Your task to perform on an android device: check data usage Image 0: 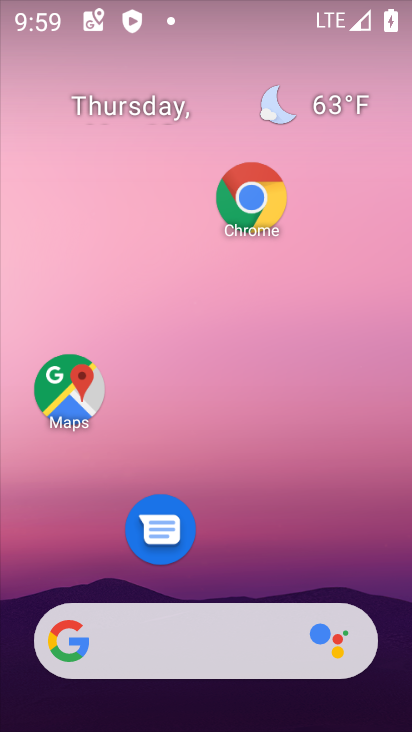
Step 0: drag from (296, 605) to (290, 149)
Your task to perform on an android device: check data usage Image 1: 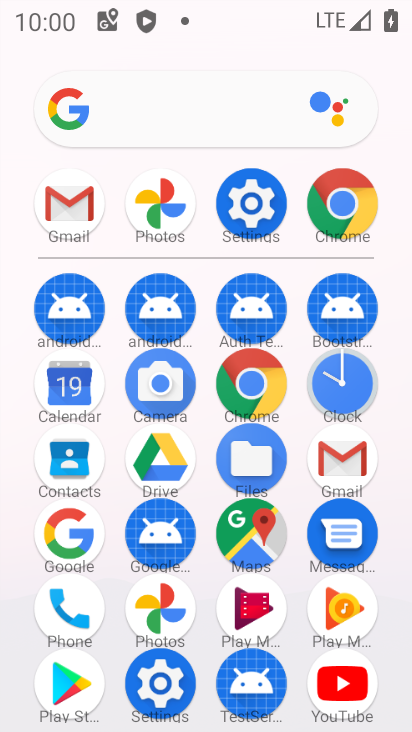
Step 1: click (257, 218)
Your task to perform on an android device: check data usage Image 2: 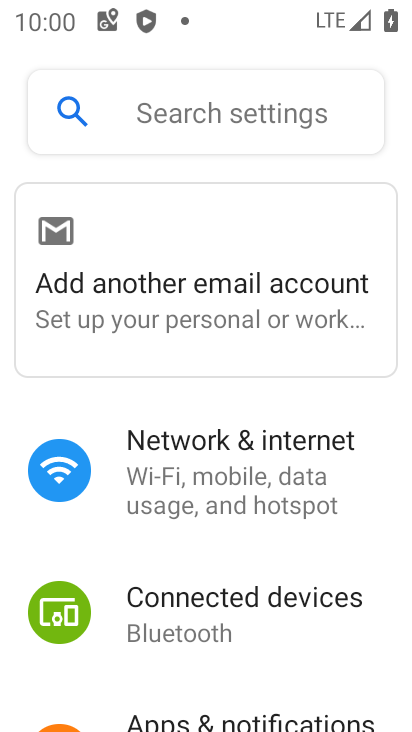
Step 2: drag from (266, 543) to (266, 214)
Your task to perform on an android device: check data usage Image 3: 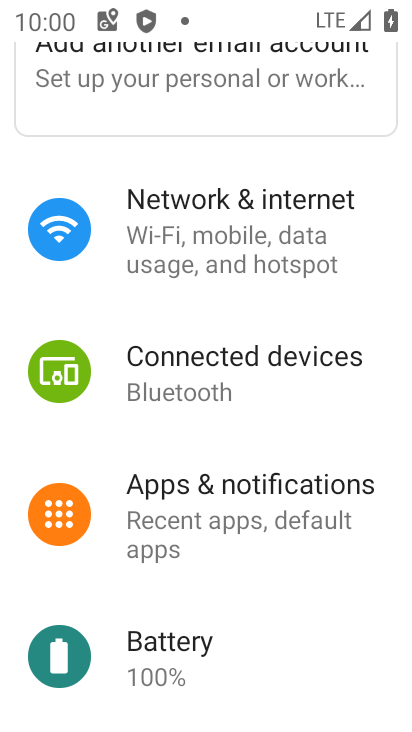
Step 3: drag from (216, 503) to (230, 252)
Your task to perform on an android device: check data usage Image 4: 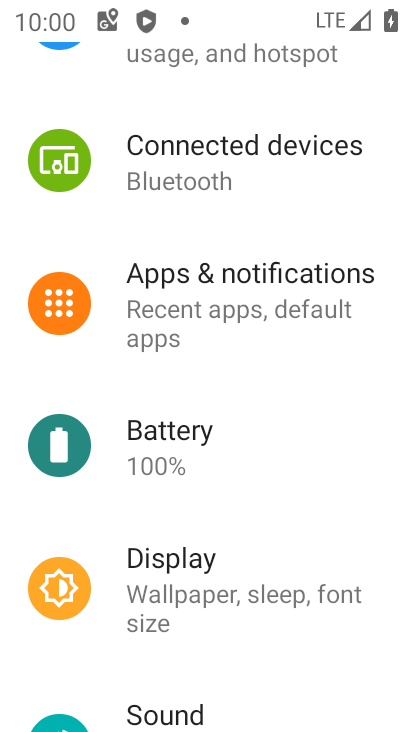
Step 4: drag from (219, 554) to (241, 297)
Your task to perform on an android device: check data usage Image 5: 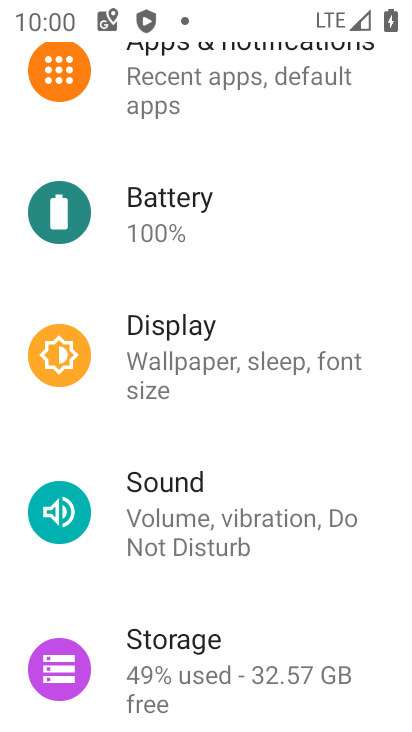
Step 5: drag from (260, 280) to (295, 710)
Your task to perform on an android device: check data usage Image 6: 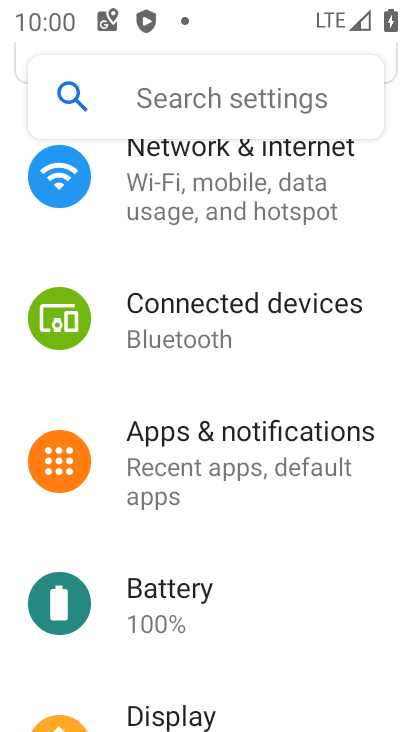
Step 6: click (266, 211)
Your task to perform on an android device: check data usage Image 7: 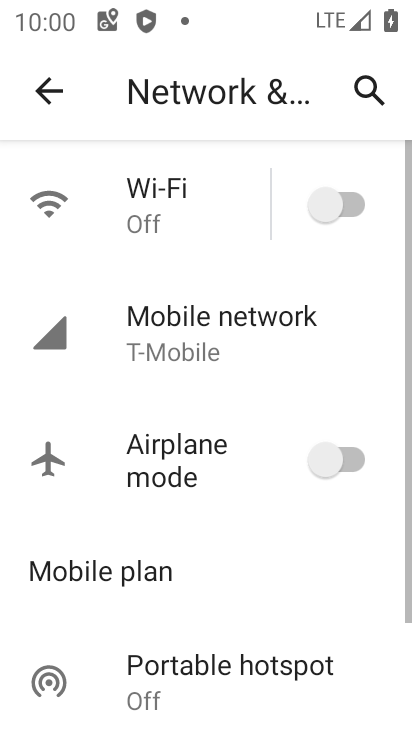
Step 7: drag from (217, 572) to (217, 312)
Your task to perform on an android device: check data usage Image 8: 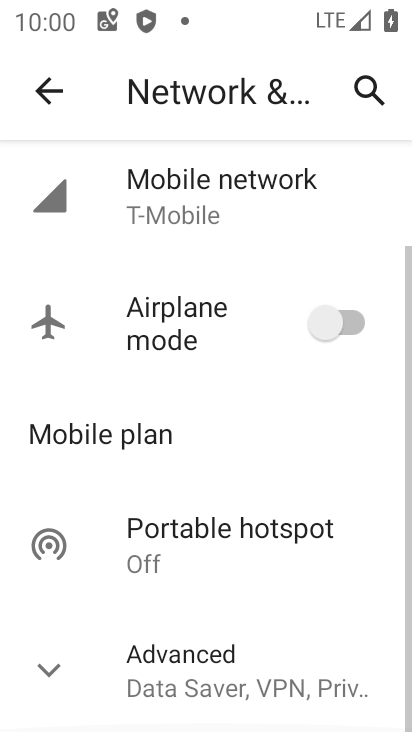
Step 8: drag from (217, 329) to (216, 647)
Your task to perform on an android device: check data usage Image 9: 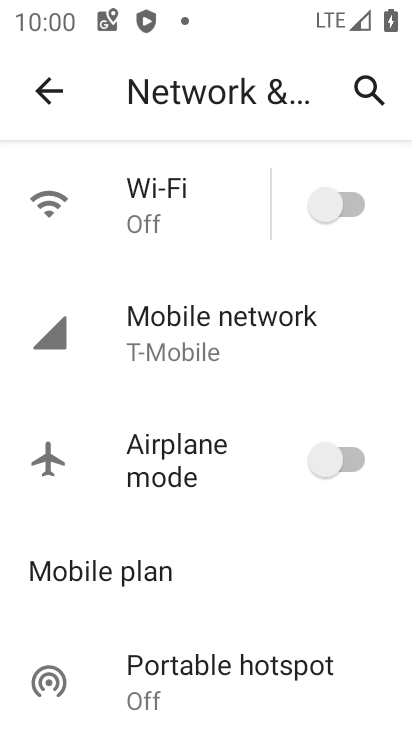
Step 9: click (226, 337)
Your task to perform on an android device: check data usage Image 10: 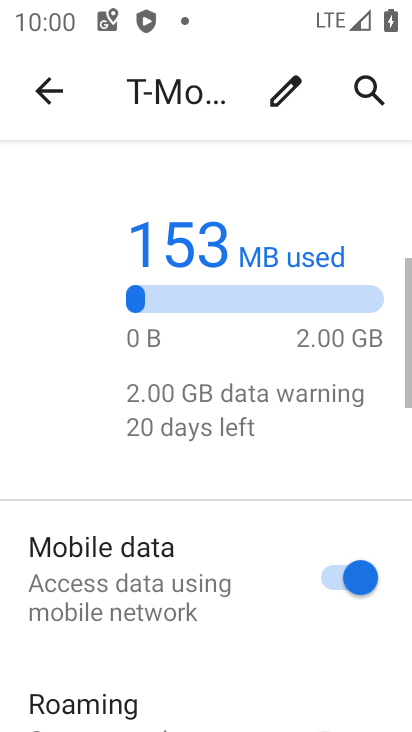
Step 10: drag from (208, 555) to (214, 200)
Your task to perform on an android device: check data usage Image 11: 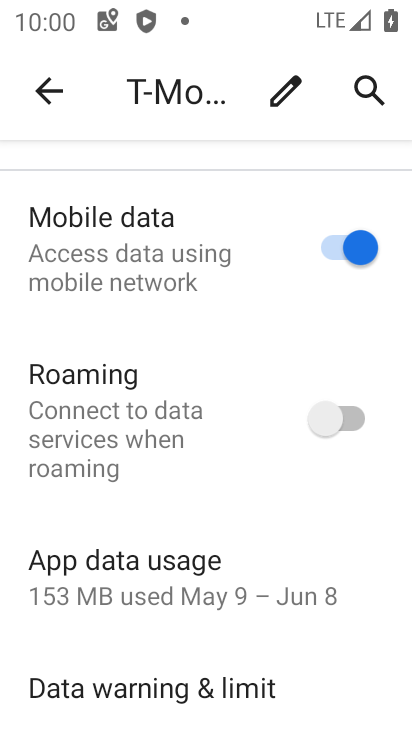
Step 11: click (198, 558)
Your task to perform on an android device: check data usage Image 12: 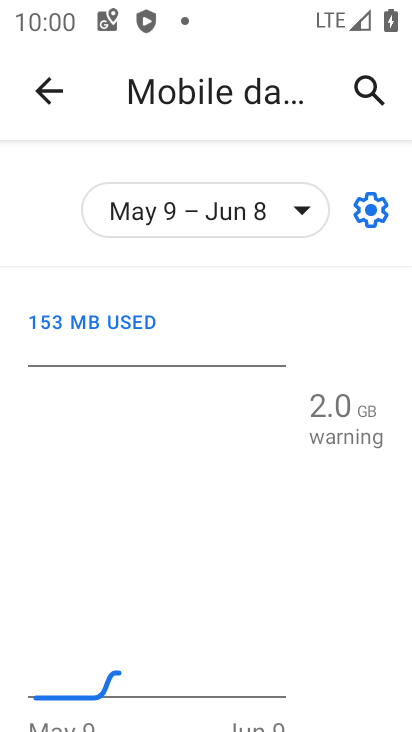
Step 12: task complete